Your task to perform on an android device: Open privacy settings Image 0: 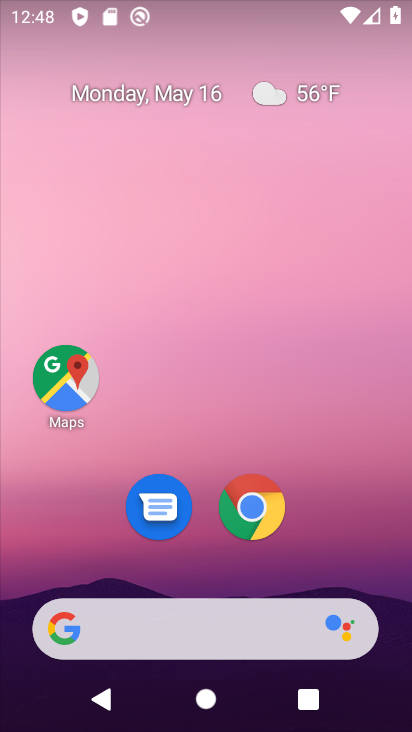
Step 0: drag from (220, 437) to (254, 102)
Your task to perform on an android device: Open privacy settings Image 1: 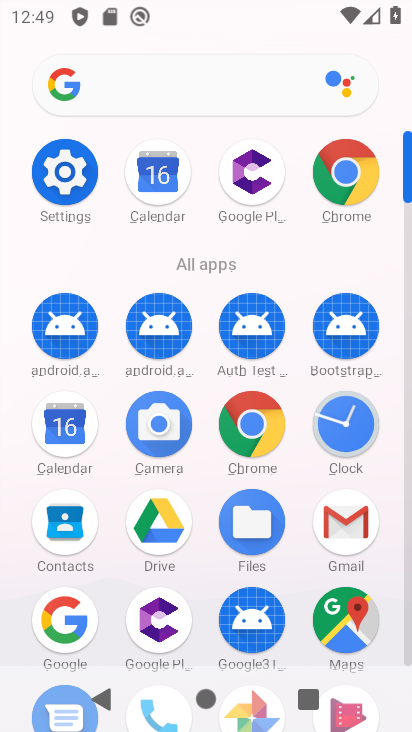
Step 1: click (51, 184)
Your task to perform on an android device: Open privacy settings Image 2: 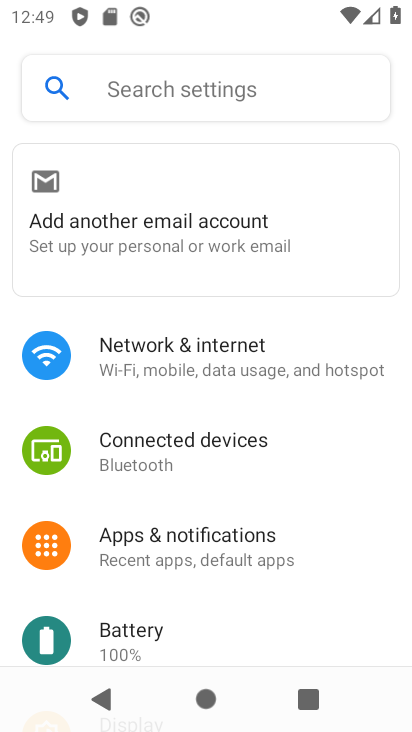
Step 2: drag from (183, 602) to (172, 384)
Your task to perform on an android device: Open privacy settings Image 3: 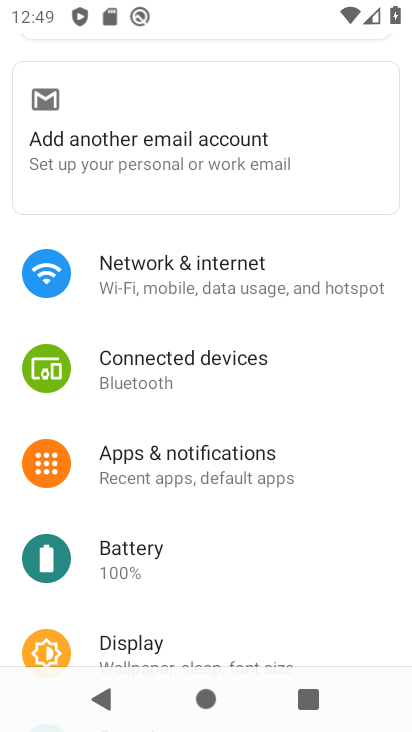
Step 3: drag from (194, 532) to (234, 270)
Your task to perform on an android device: Open privacy settings Image 4: 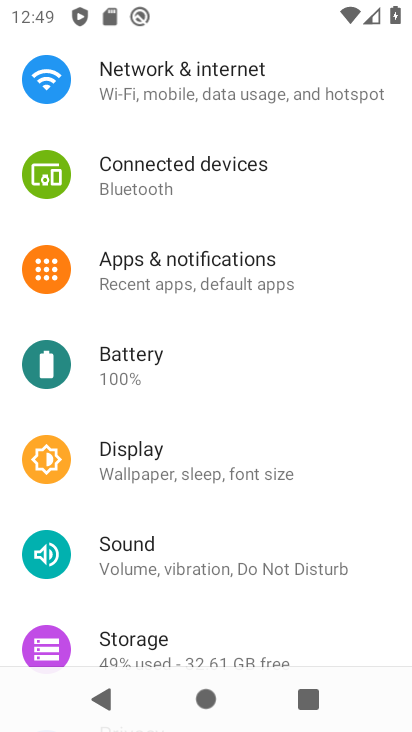
Step 4: drag from (181, 485) to (219, 300)
Your task to perform on an android device: Open privacy settings Image 5: 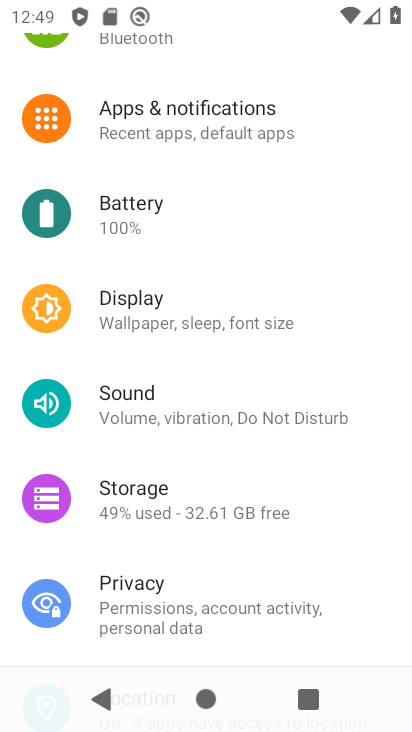
Step 5: click (164, 581)
Your task to perform on an android device: Open privacy settings Image 6: 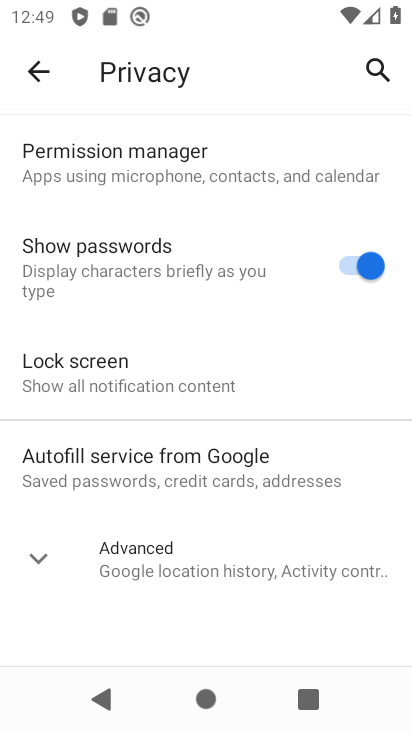
Step 6: task complete